Your task to perform on an android device: Open Yahoo.com Image 0: 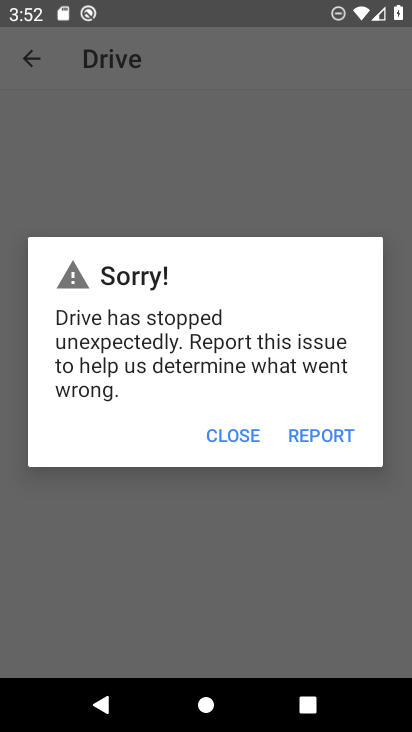
Step 0: press home button
Your task to perform on an android device: Open Yahoo.com Image 1: 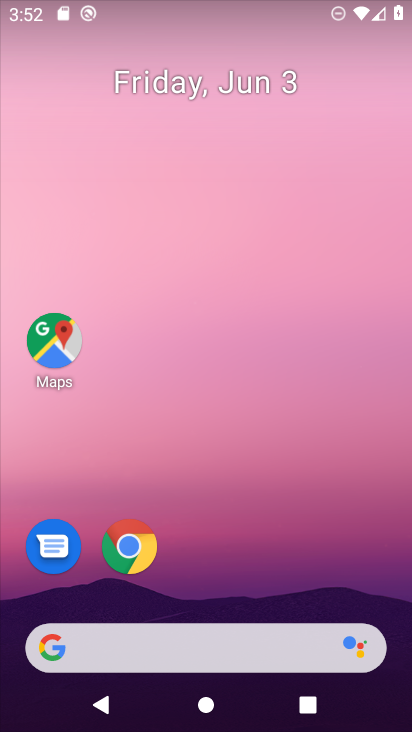
Step 1: click (178, 651)
Your task to perform on an android device: Open Yahoo.com Image 2: 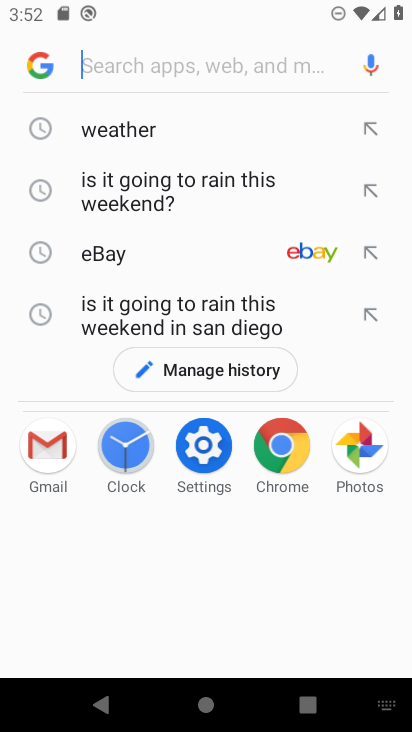
Step 2: type "yahoo.com"
Your task to perform on an android device: Open Yahoo.com Image 3: 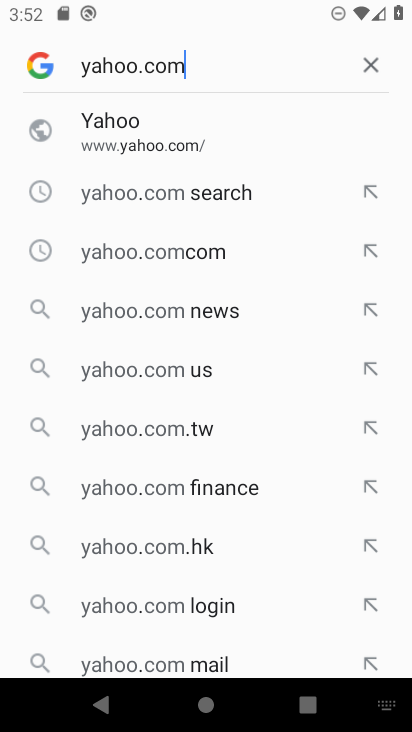
Step 3: click (102, 123)
Your task to perform on an android device: Open Yahoo.com Image 4: 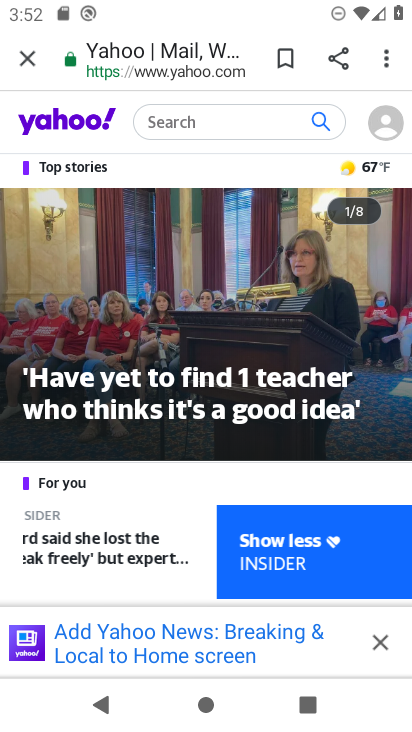
Step 4: task complete